Your task to perform on an android device: Search for vegetarian restaurants on Maps Image 0: 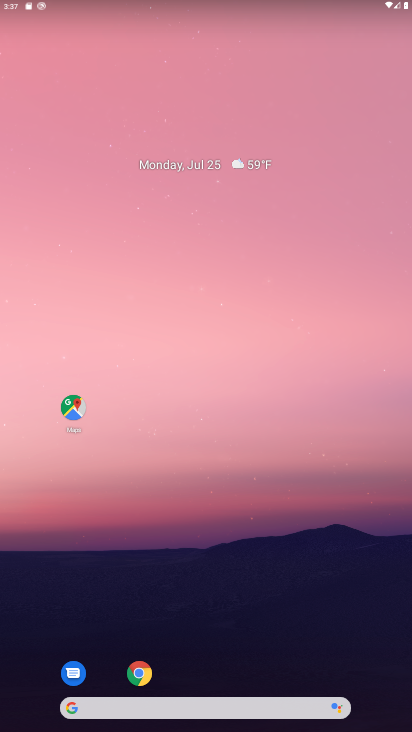
Step 0: drag from (279, 650) to (228, 400)
Your task to perform on an android device: Search for vegetarian restaurants on Maps Image 1: 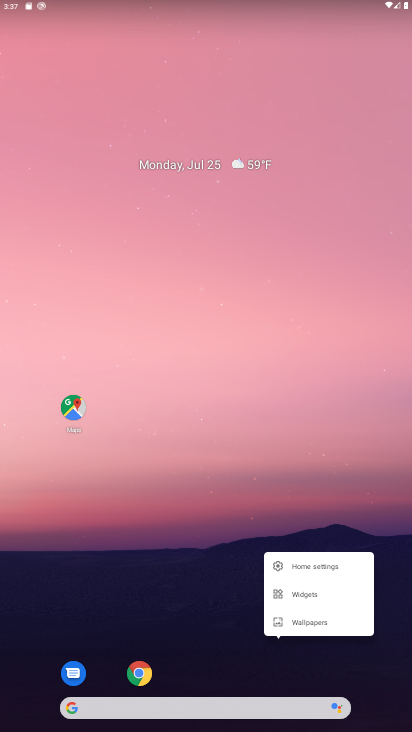
Step 1: click (228, 400)
Your task to perform on an android device: Search for vegetarian restaurants on Maps Image 2: 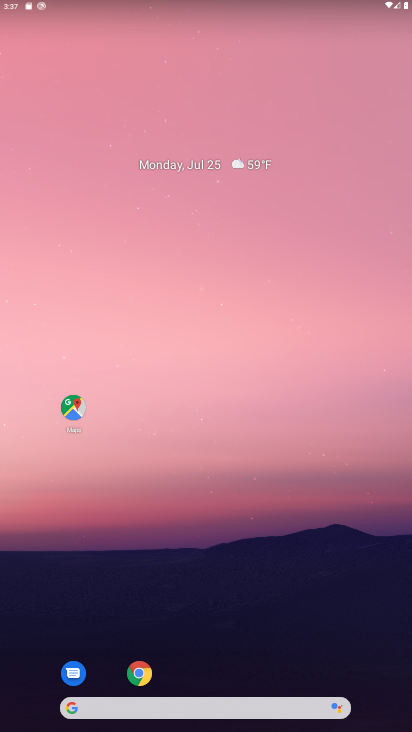
Step 2: click (68, 404)
Your task to perform on an android device: Search for vegetarian restaurants on Maps Image 3: 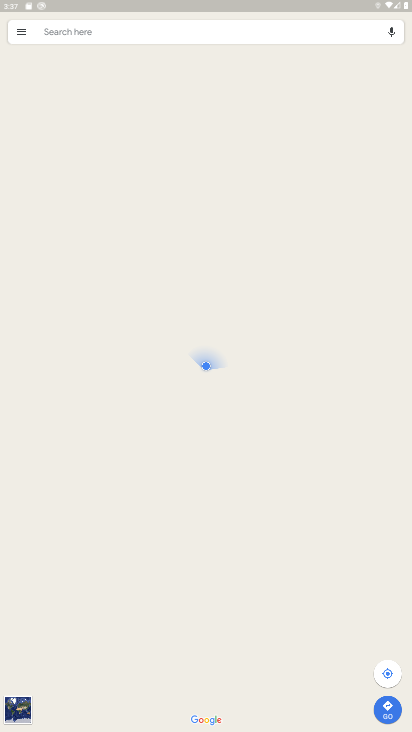
Step 3: click (104, 30)
Your task to perform on an android device: Search for vegetarian restaurants on Maps Image 4: 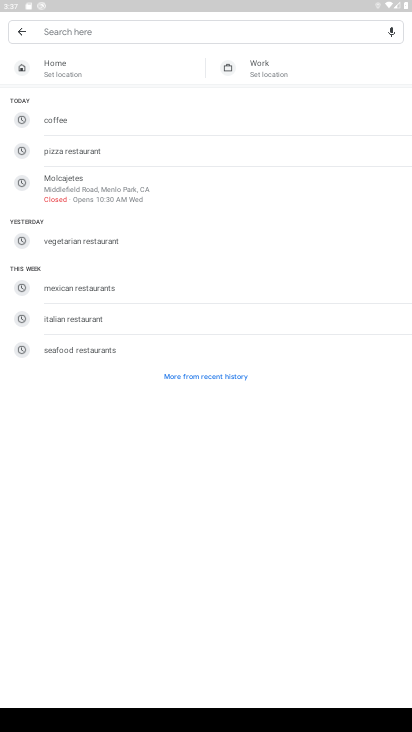
Step 4: click (88, 238)
Your task to perform on an android device: Search for vegetarian restaurants on Maps Image 5: 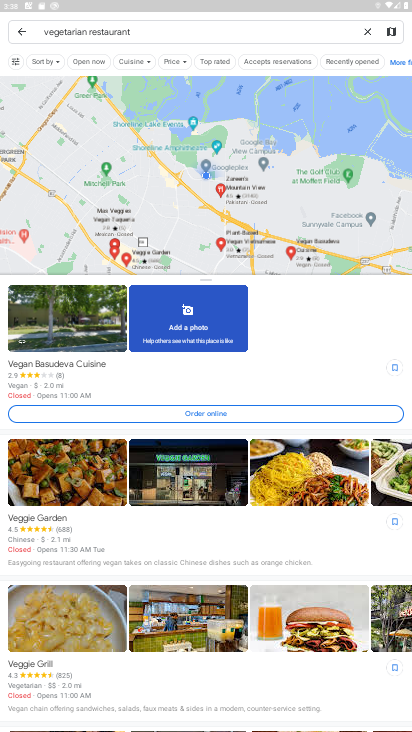
Step 5: task complete